Your task to perform on an android device: open app "Speedtest by Ookla" (install if not already installed) Image 0: 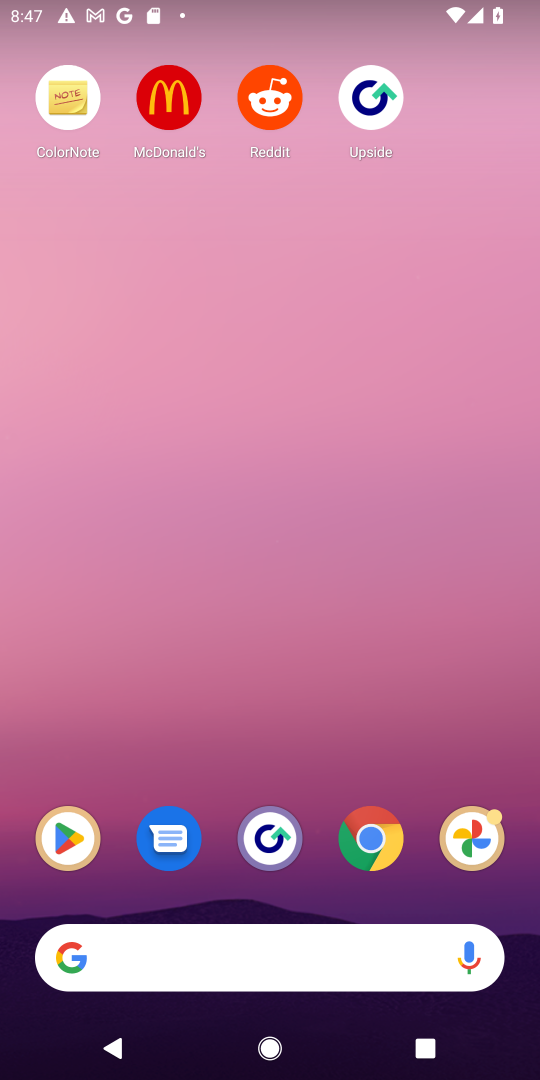
Step 0: drag from (363, 728) to (441, 161)
Your task to perform on an android device: open app "Speedtest by Ookla" (install if not already installed) Image 1: 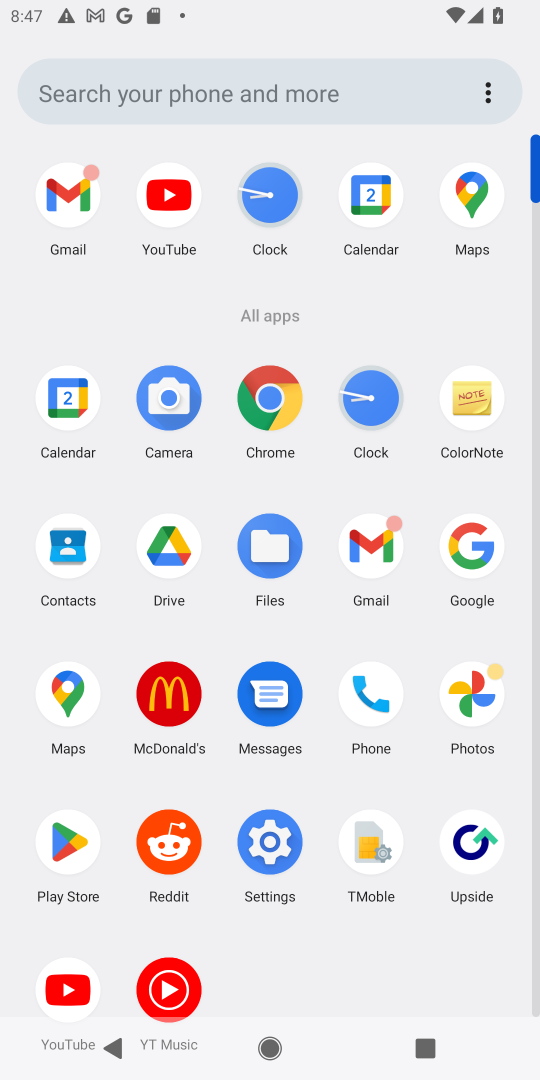
Step 1: click (78, 850)
Your task to perform on an android device: open app "Speedtest by Ookla" (install if not already installed) Image 2: 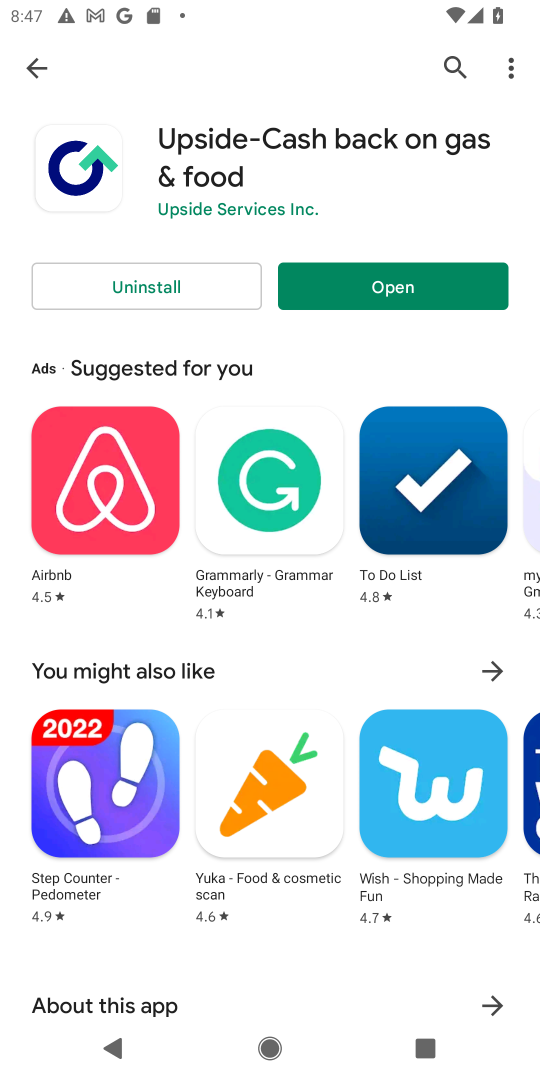
Step 2: click (457, 61)
Your task to perform on an android device: open app "Speedtest by Ookla" (install if not already installed) Image 3: 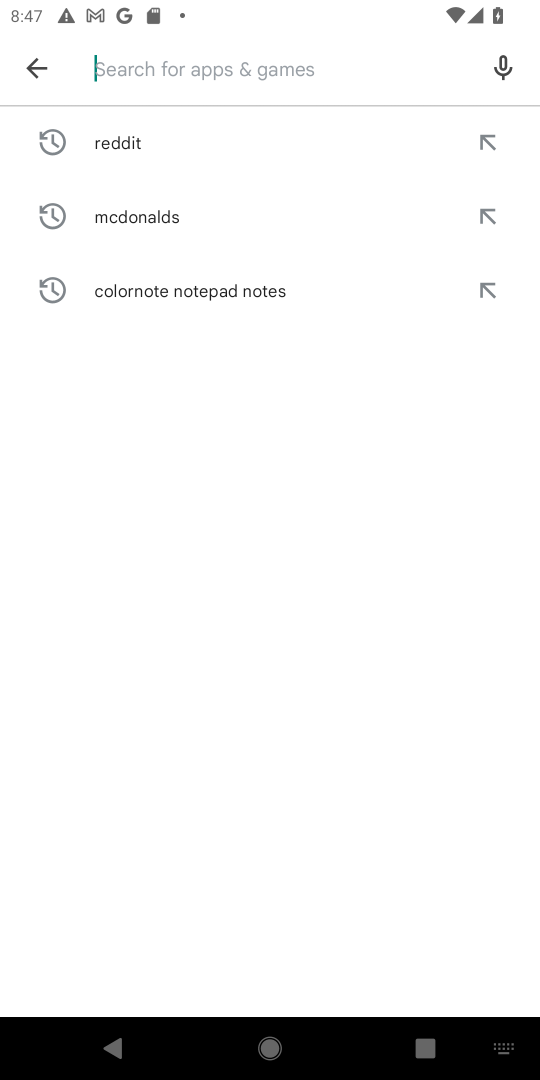
Step 3: type "speed test by ookla"
Your task to perform on an android device: open app "Speedtest by Ookla" (install if not already installed) Image 4: 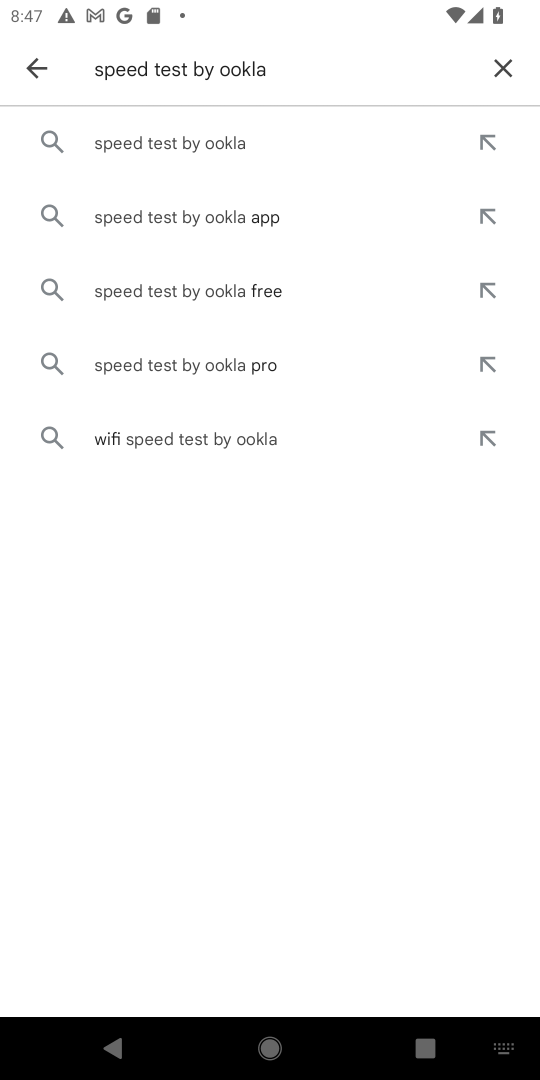
Step 4: click (233, 137)
Your task to perform on an android device: open app "Speedtest by Ookla" (install if not already installed) Image 5: 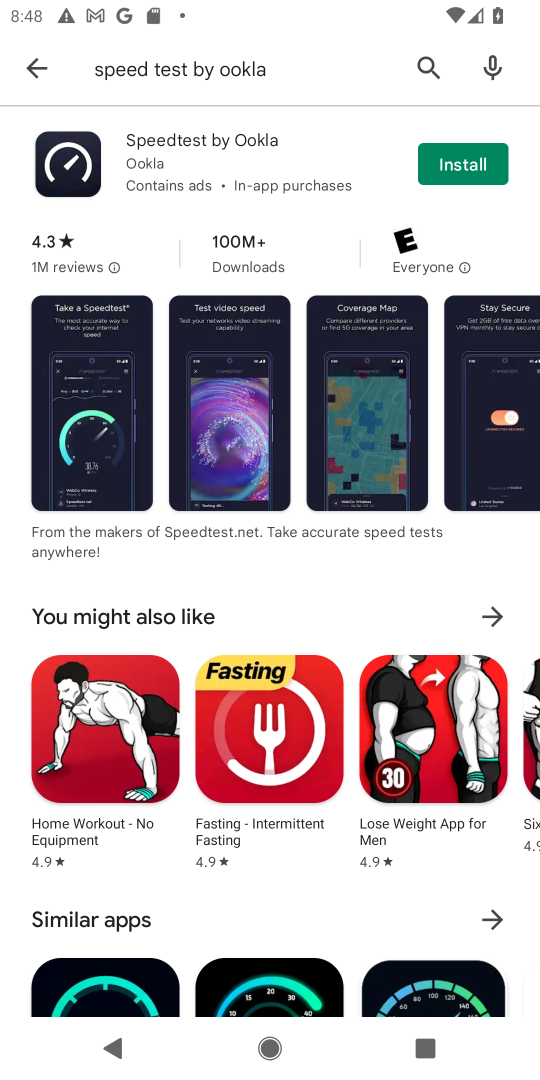
Step 5: click (459, 160)
Your task to perform on an android device: open app "Speedtest by Ookla" (install if not already installed) Image 6: 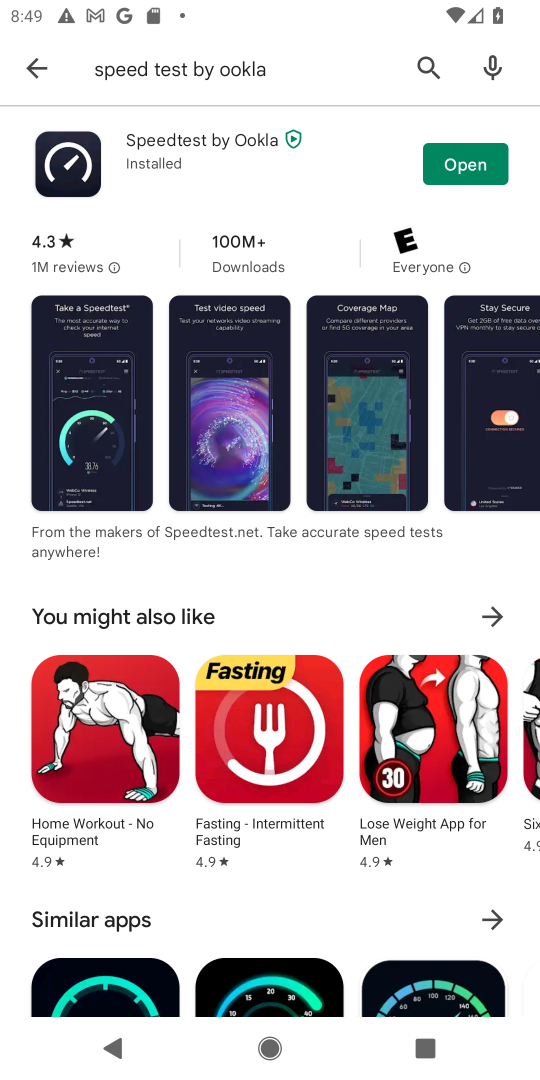
Step 6: click (469, 157)
Your task to perform on an android device: open app "Speedtest by Ookla" (install if not already installed) Image 7: 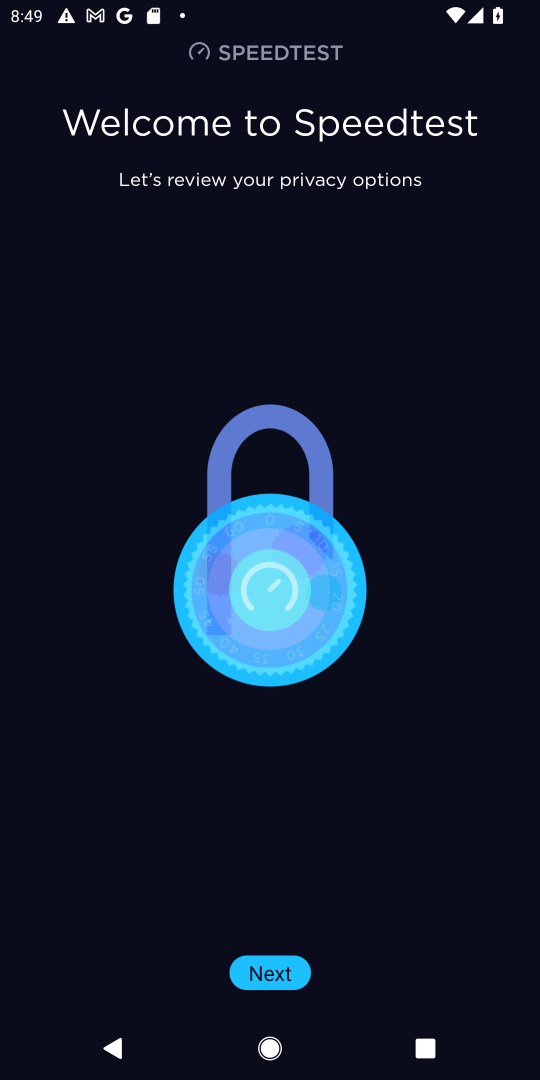
Step 7: task complete